Your task to perform on an android device: Open maps Image 0: 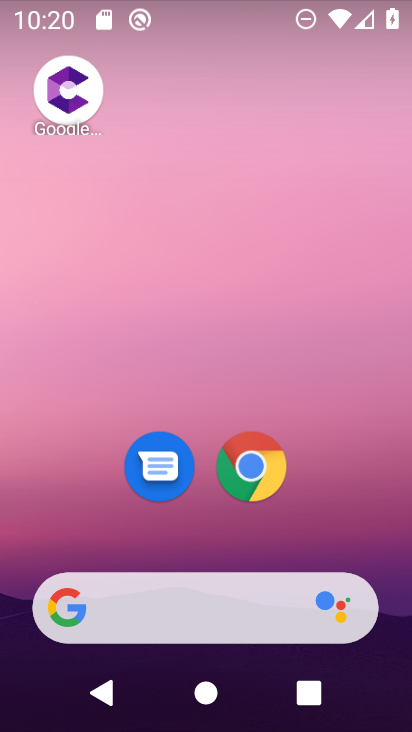
Step 0: drag from (367, 476) to (341, 88)
Your task to perform on an android device: Open maps Image 1: 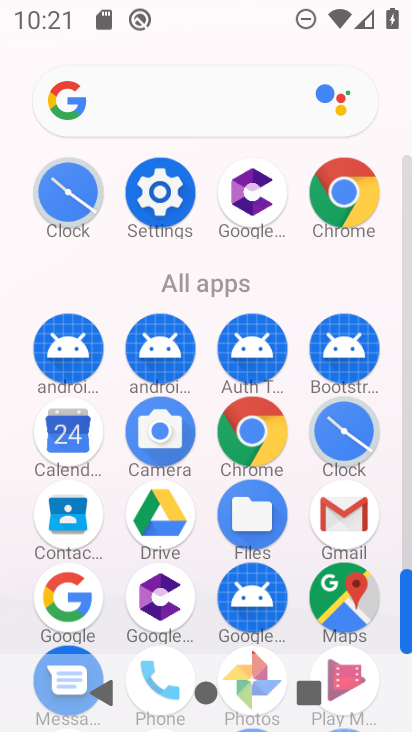
Step 1: click (343, 605)
Your task to perform on an android device: Open maps Image 2: 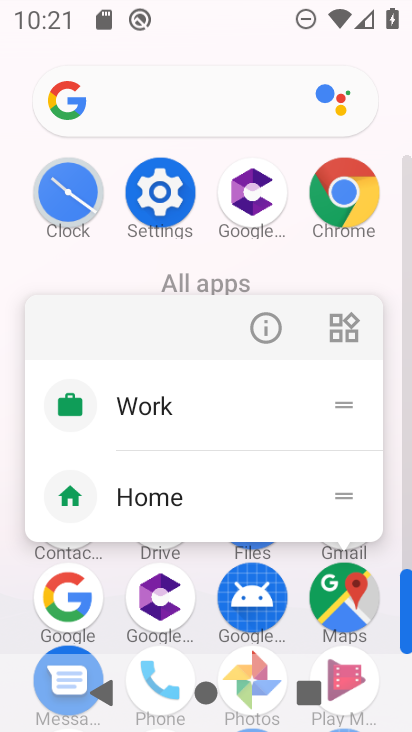
Step 2: click (358, 598)
Your task to perform on an android device: Open maps Image 3: 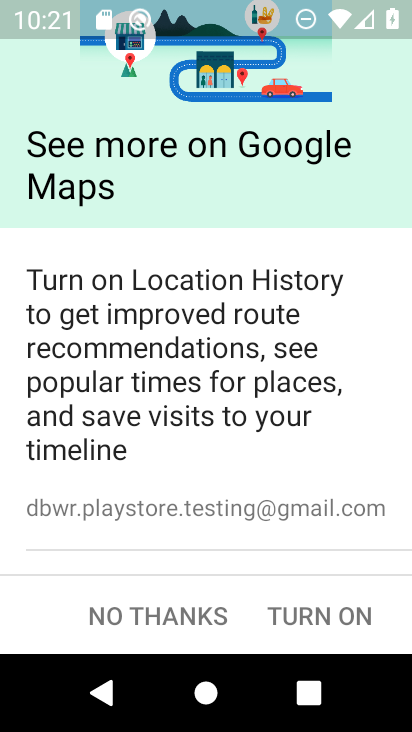
Step 3: task complete